Your task to perform on an android device: change timer sound Image 0: 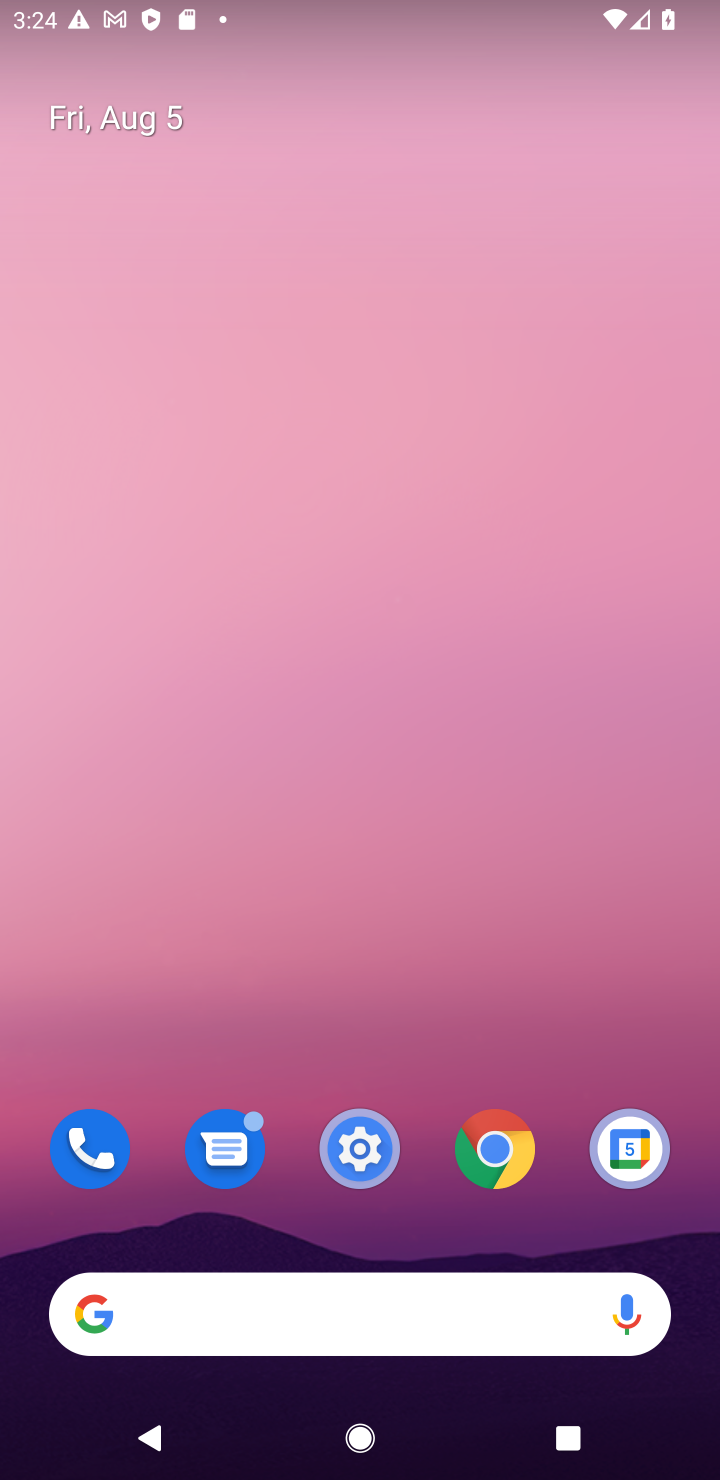
Step 0: drag from (329, 1098) to (561, 43)
Your task to perform on an android device: change timer sound Image 1: 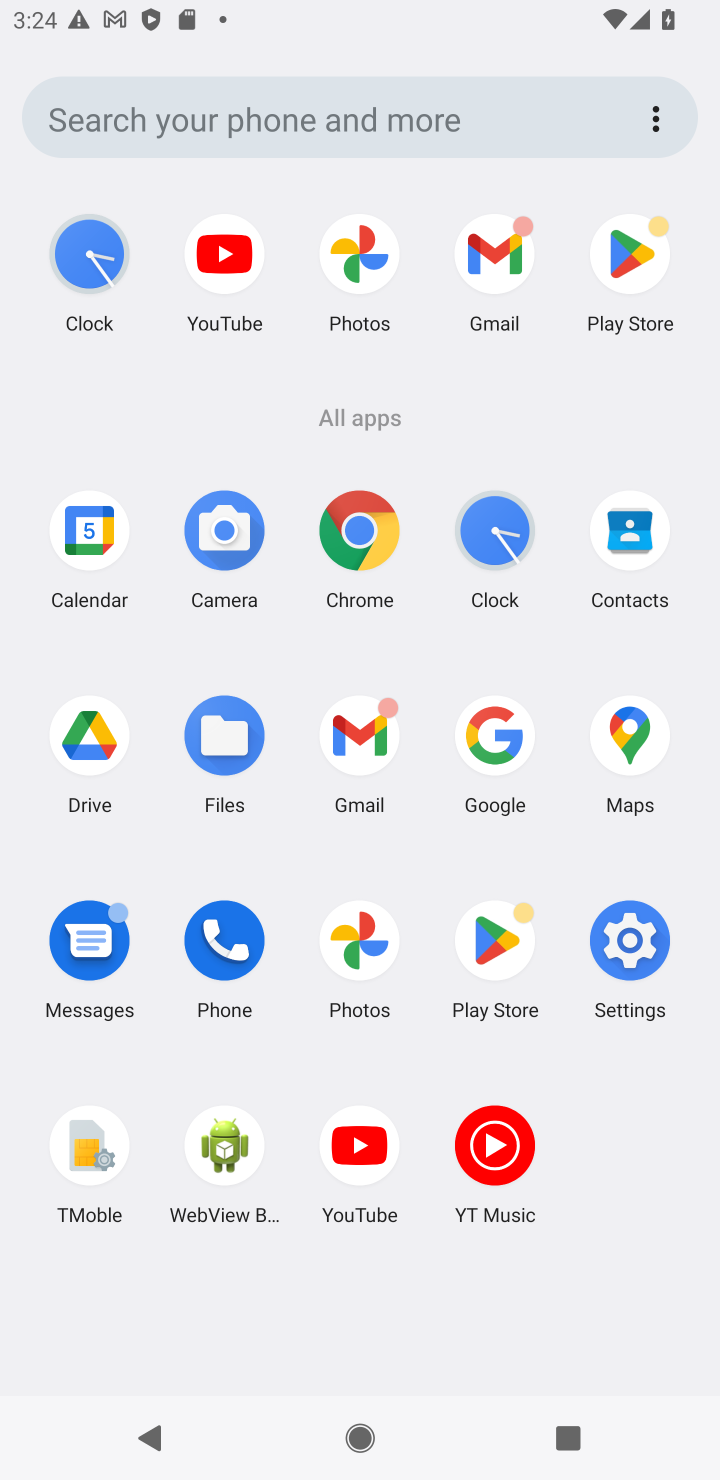
Step 1: click (499, 549)
Your task to perform on an android device: change timer sound Image 2: 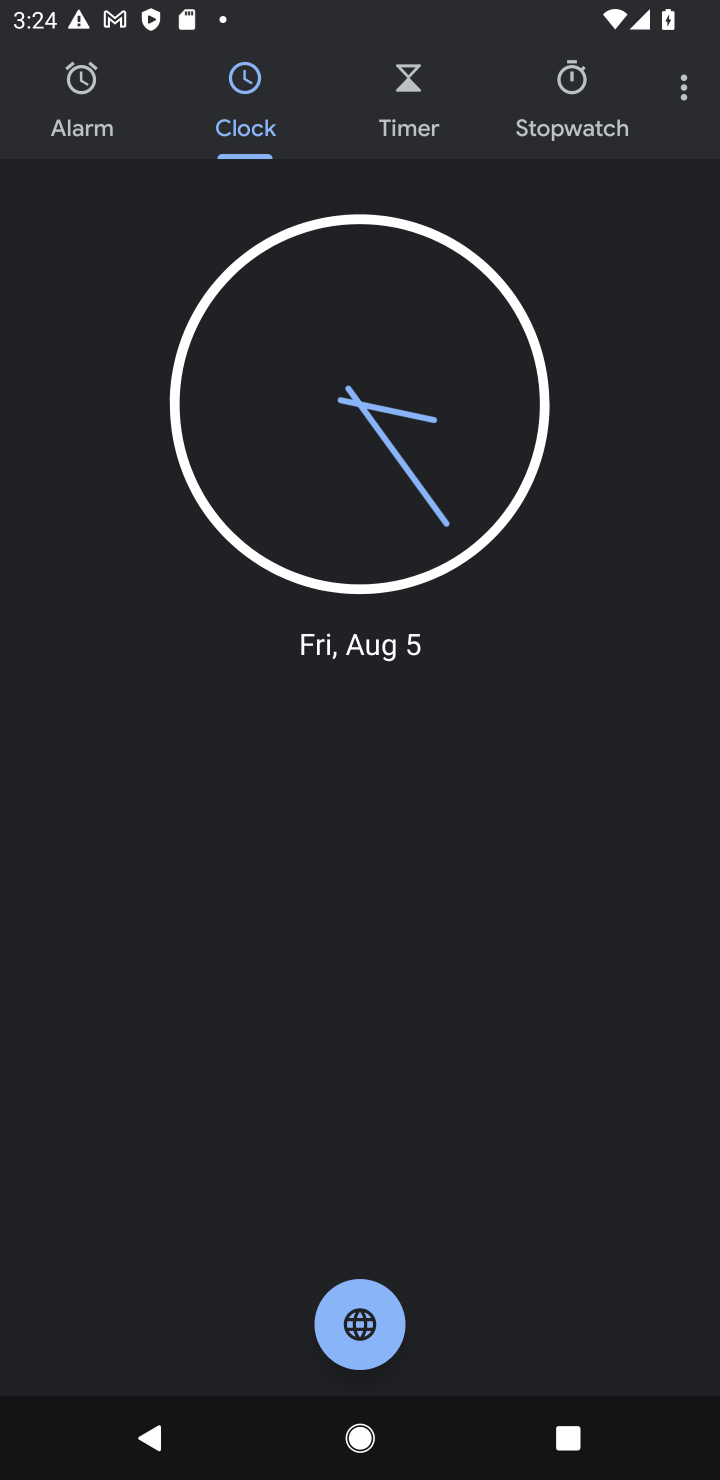
Step 2: click (671, 83)
Your task to perform on an android device: change timer sound Image 3: 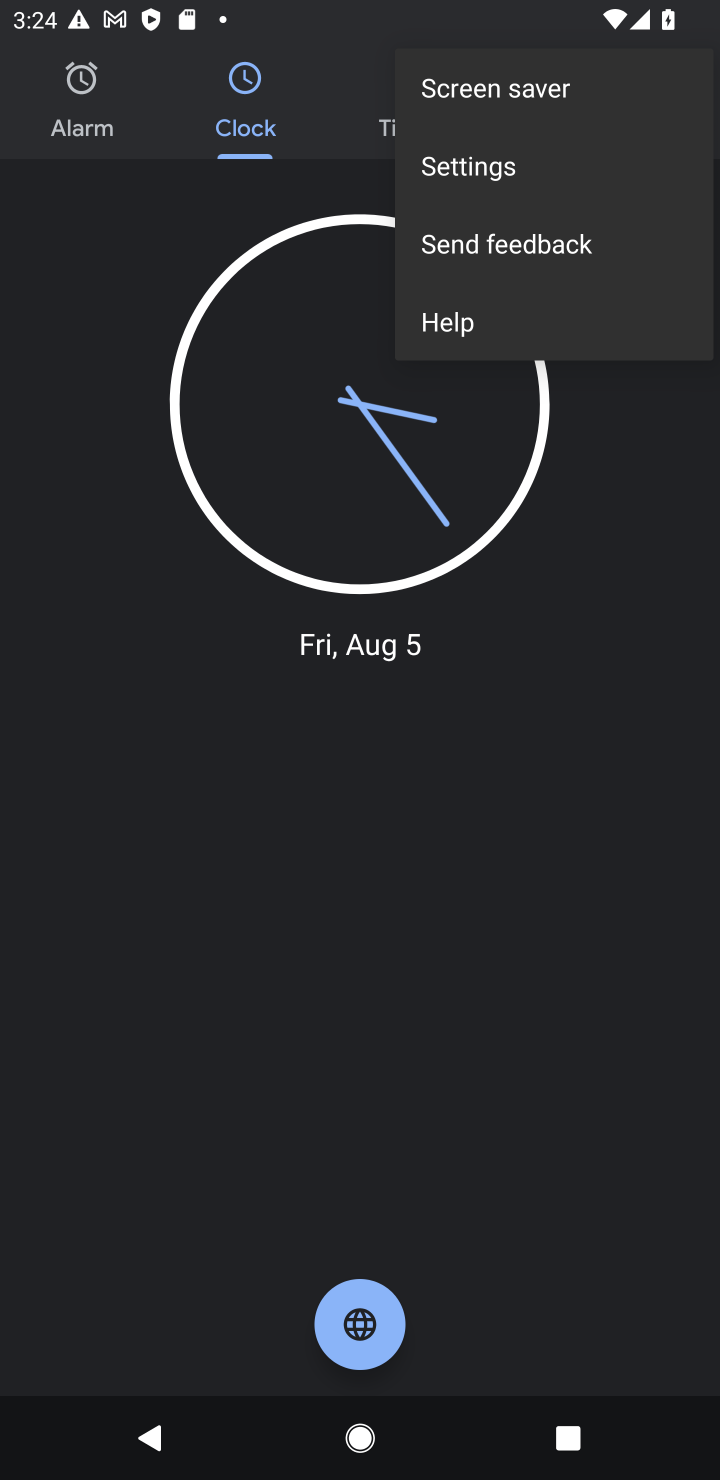
Step 3: click (536, 197)
Your task to perform on an android device: change timer sound Image 4: 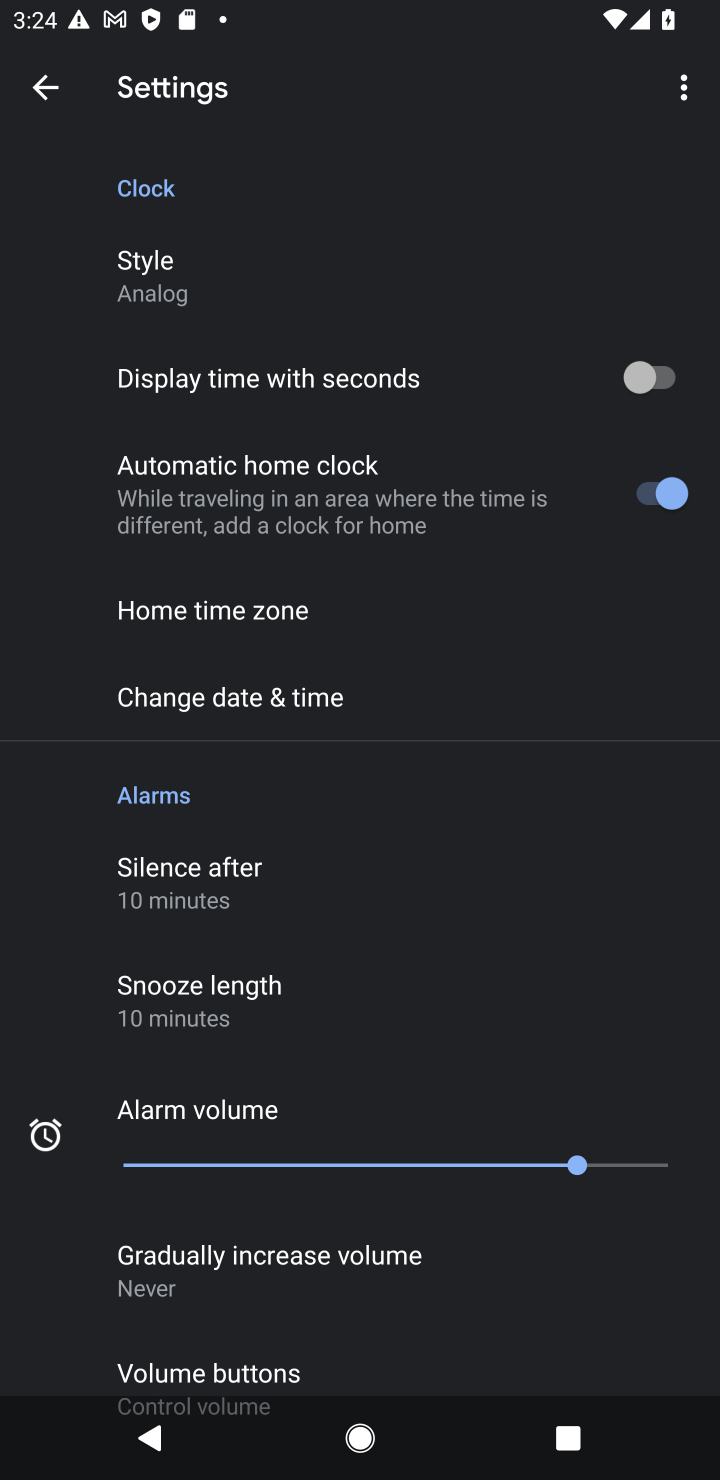
Step 4: drag from (335, 1168) to (501, 20)
Your task to perform on an android device: change timer sound Image 5: 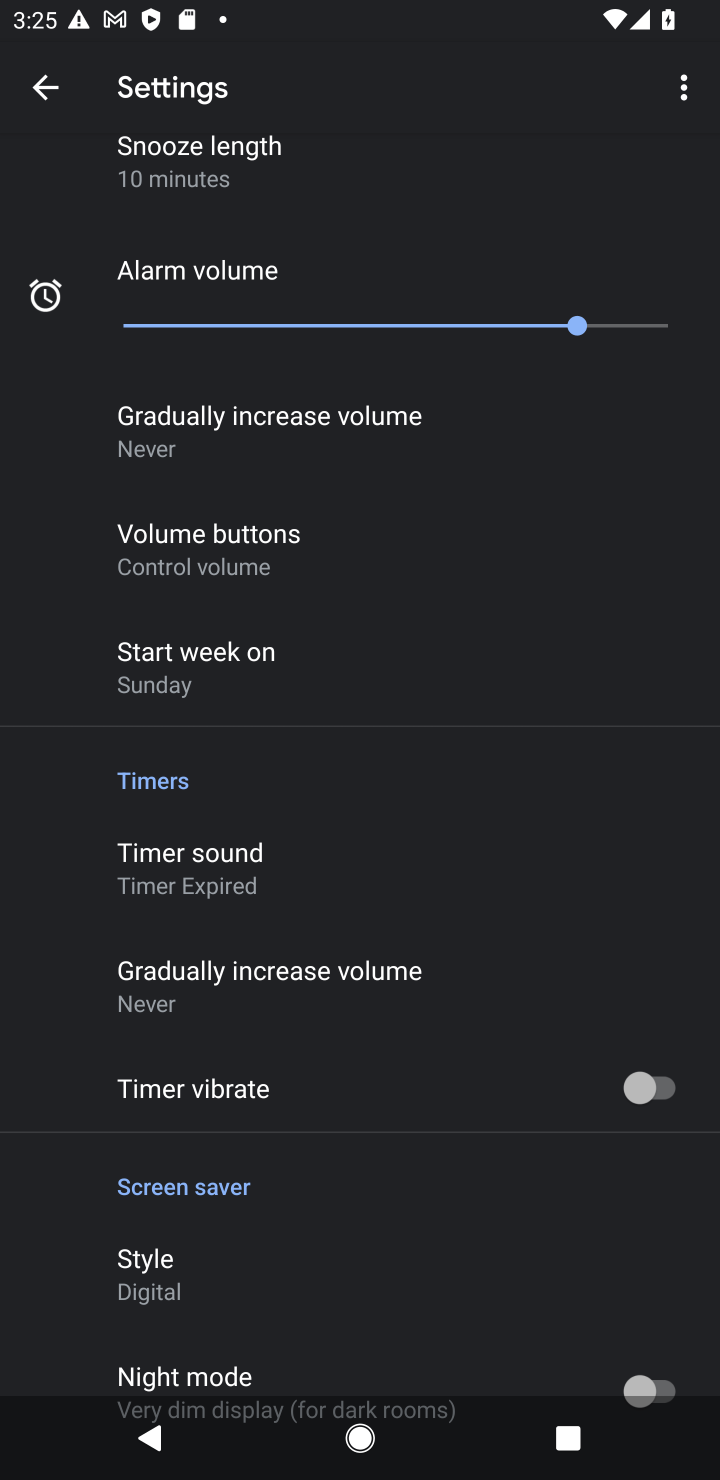
Step 5: click (228, 852)
Your task to perform on an android device: change timer sound Image 6: 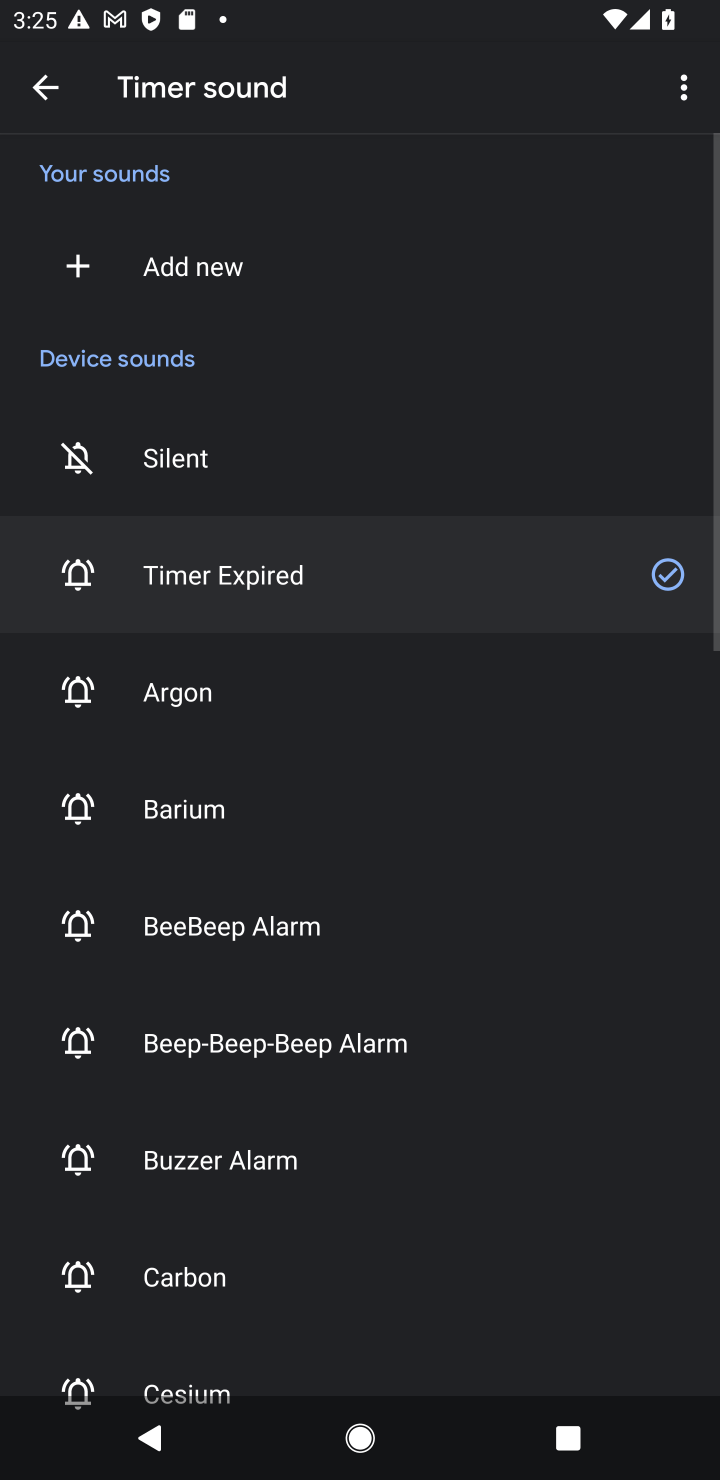
Step 6: click (169, 706)
Your task to perform on an android device: change timer sound Image 7: 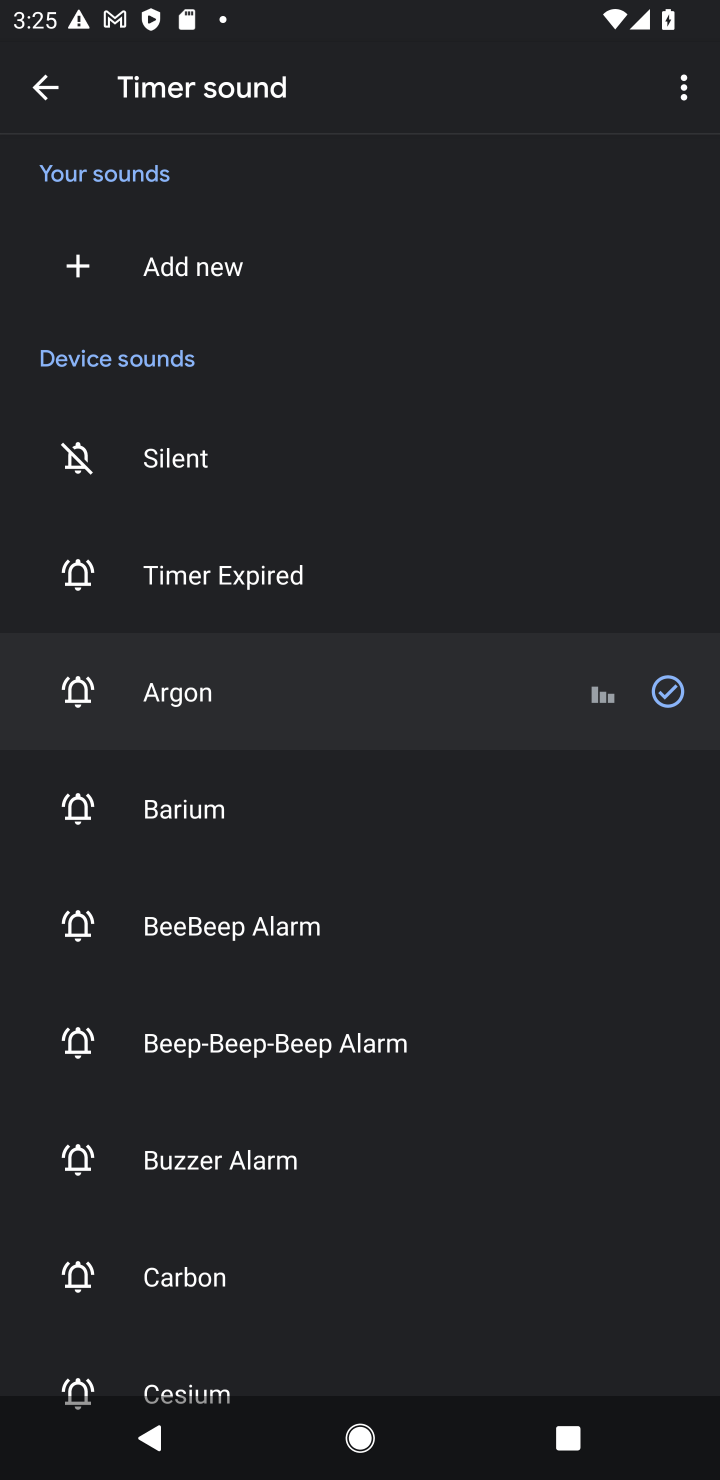
Step 7: task complete